Your task to perform on an android device: Go to battery settings Image 0: 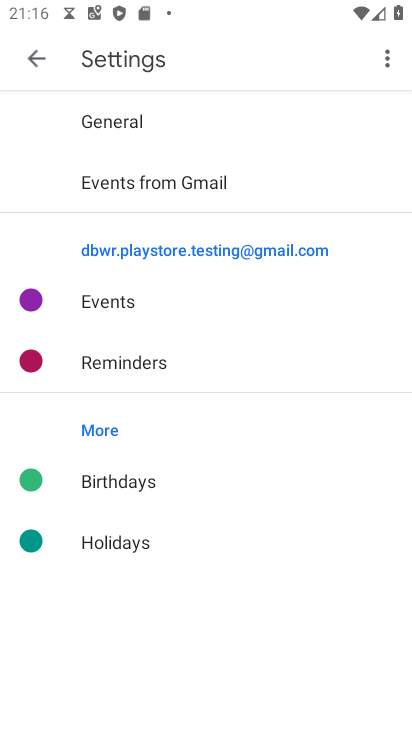
Step 0: press home button
Your task to perform on an android device: Go to battery settings Image 1: 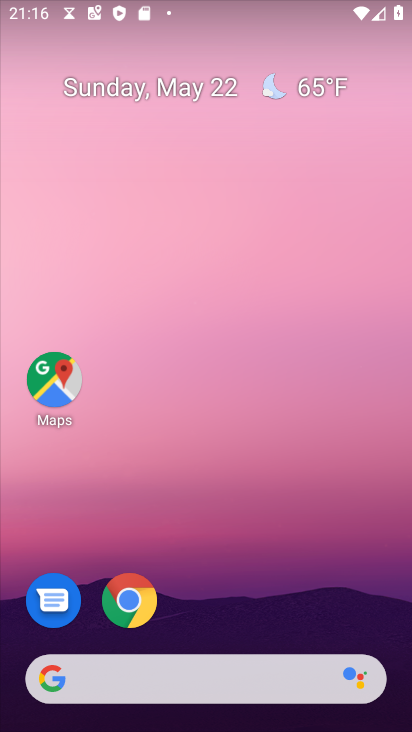
Step 1: drag from (238, 609) to (213, 185)
Your task to perform on an android device: Go to battery settings Image 2: 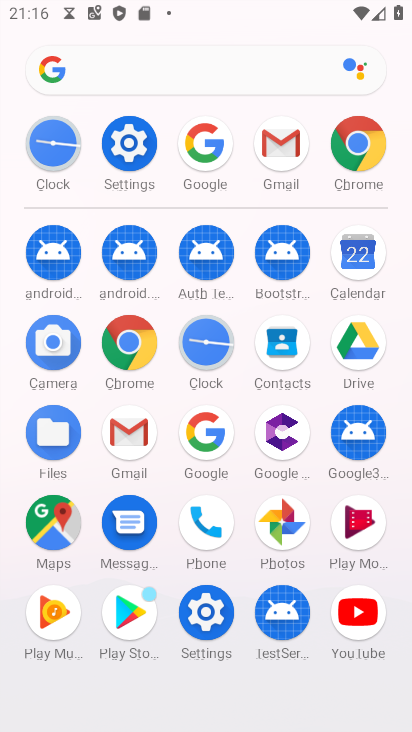
Step 2: click (125, 148)
Your task to perform on an android device: Go to battery settings Image 3: 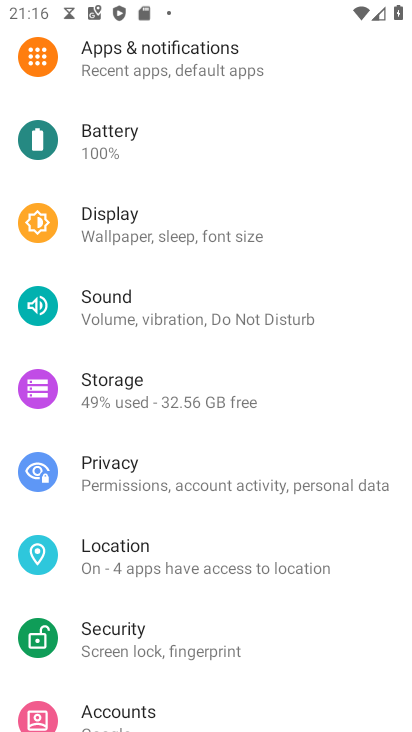
Step 3: click (125, 148)
Your task to perform on an android device: Go to battery settings Image 4: 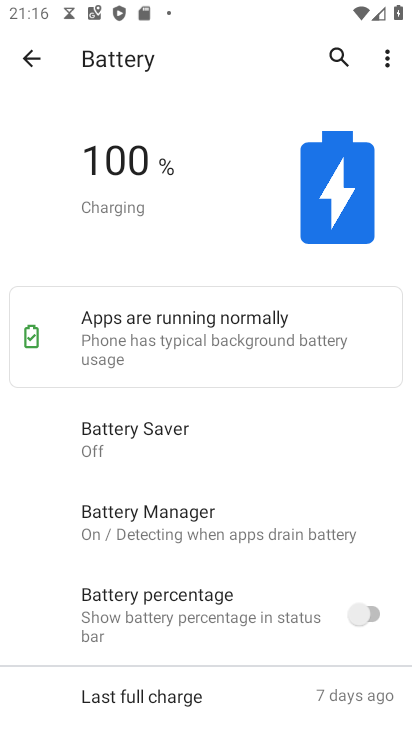
Step 4: task complete